Your task to perform on an android device: check storage Image 0: 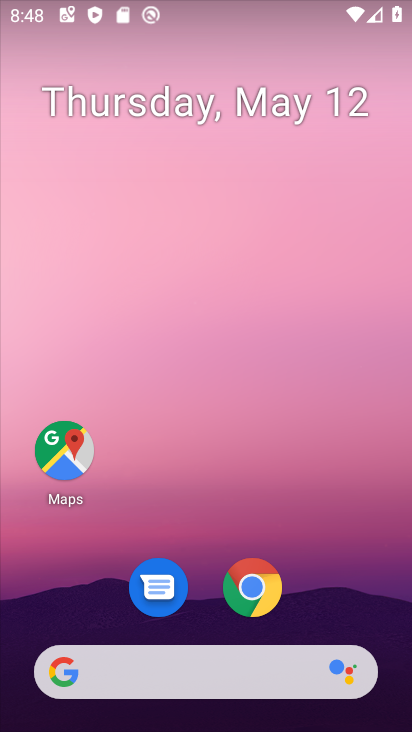
Step 0: drag from (307, 489) to (351, 21)
Your task to perform on an android device: check storage Image 1: 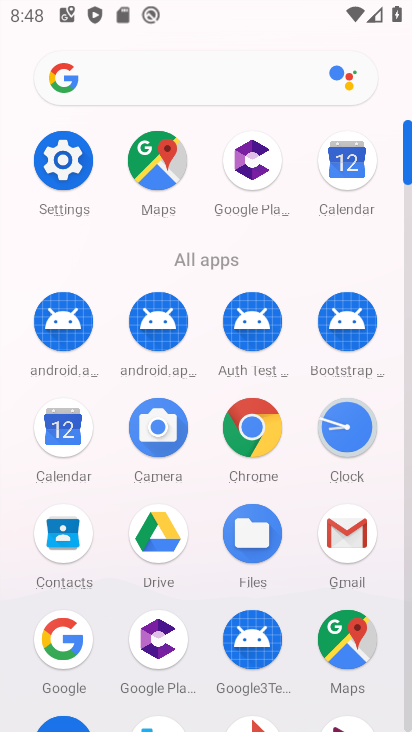
Step 1: click (74, 173)
Your task to perform on an android device: check storage Image 2: 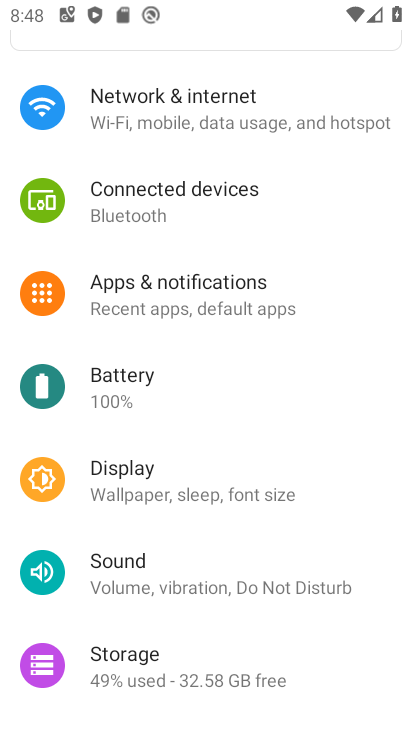
Step 2: drag from (188, 619) to (219, 348)
Your task to perform on an android device: check storage Image 3: 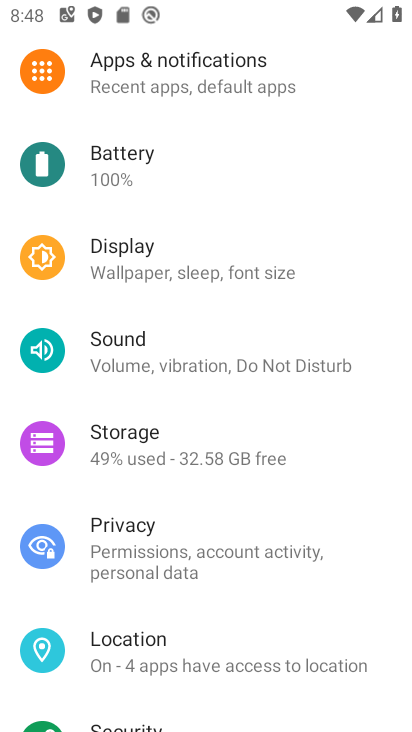
Step 3: click (163, 432)
Your task to perform on an android device: check storage Image 4: 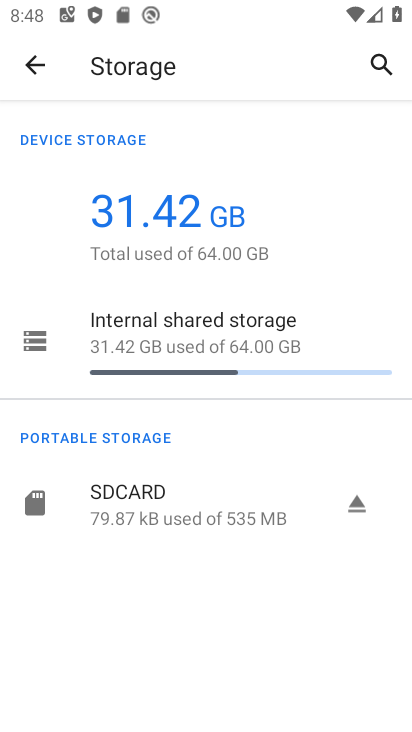
Step 4: task complete